Your task to perform on an android device: Open display settings Image 0: 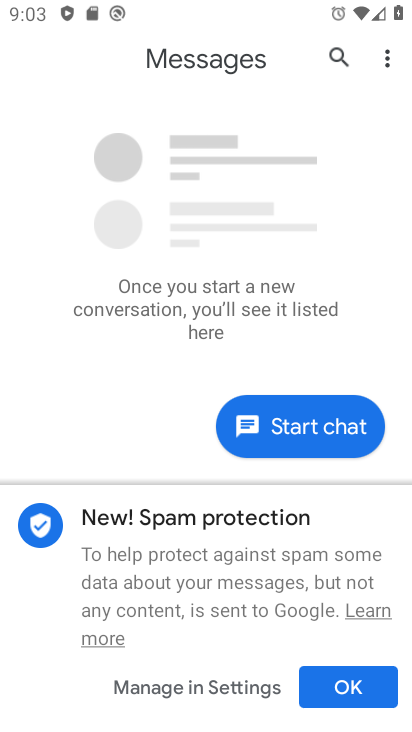
Step 0: press back button
Your task to perform on an android device: Open display settings Image 1: 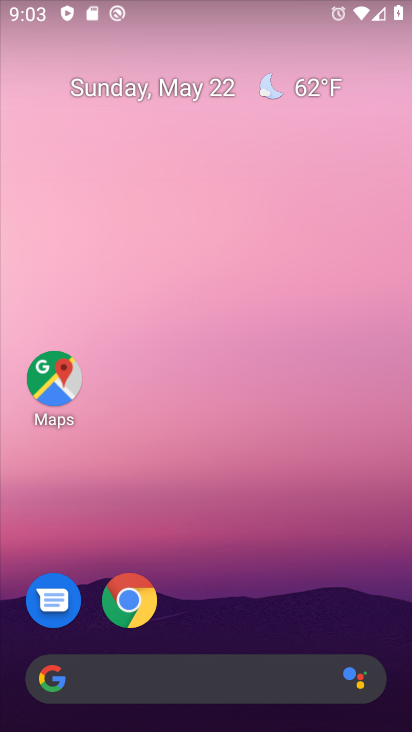
Step 1: drag from (239, 610) to (224, 113)
Your task to perform on an android device: Open display settings Image 2: 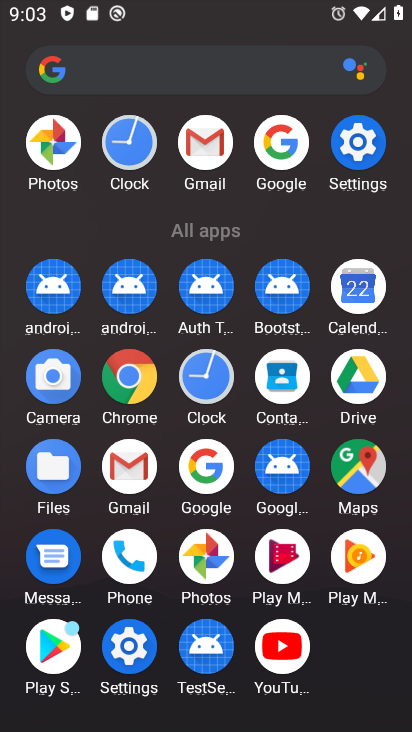
Step 2: click (357, 140)
Your task to perform on an android device: Open display settings Image 3: 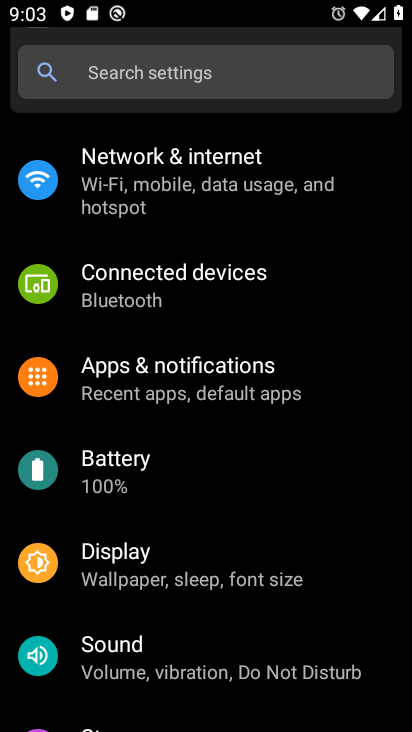
Step 3: click (178, 575)
Your task to perform on an android device: Open display settings Image 4: 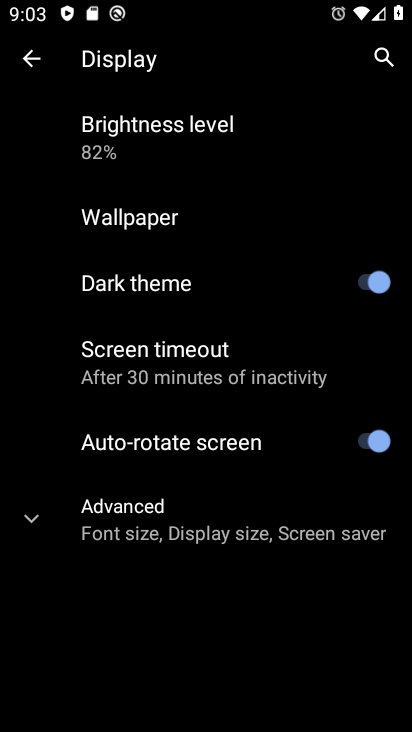
Step 4: task complete